Your task to perform on an android device: check out phone information Image 0: 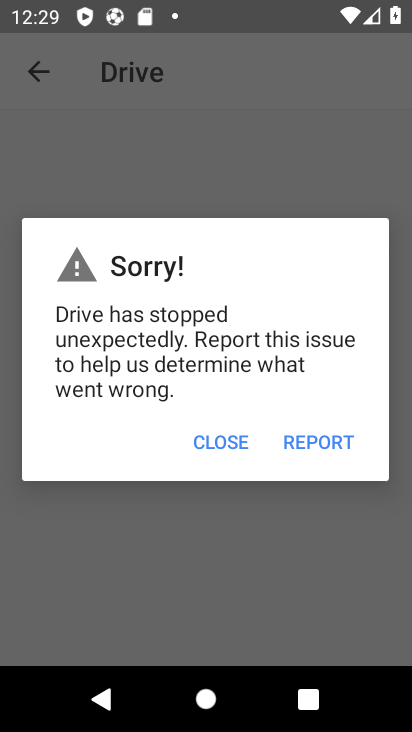
Step 0: drag from (235, 599) to (217, 331)
Your task to perform on an android device: check out phone information Image 1: 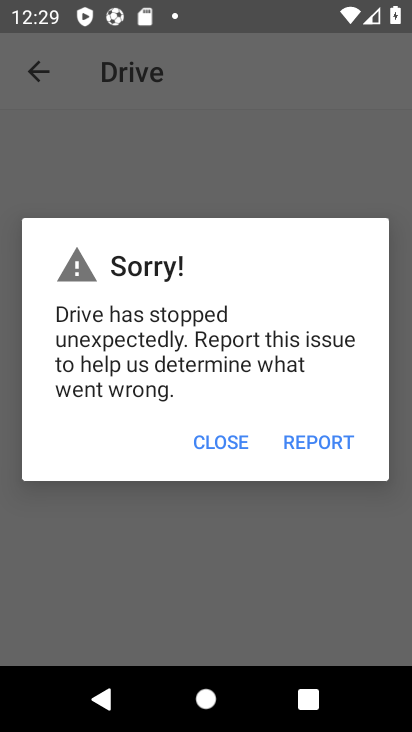
Step 1: press home button
Your task to perform on an android device: check out phone information Image 2: 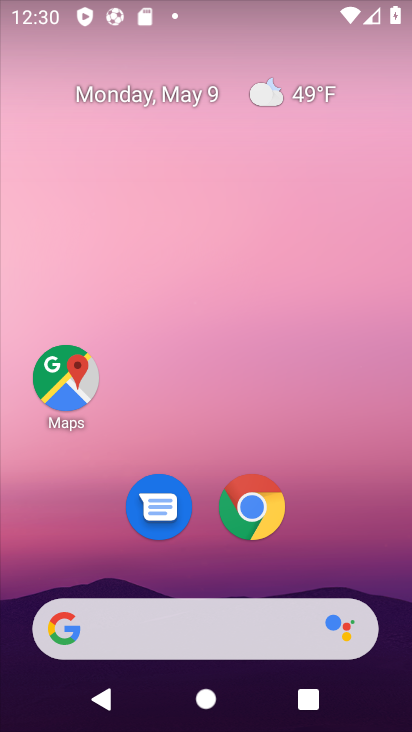
Step 2: drag from (188, 607) to (217, 325)
Your task to perform on an android device: check out phone information Image 3: 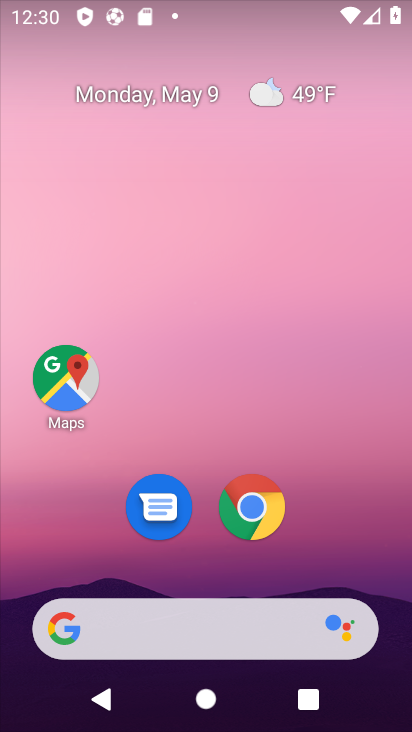
Step 3: drag from (211, 599) to (268, 278)
Your task to perform on an android device: check out phone information Image 4: 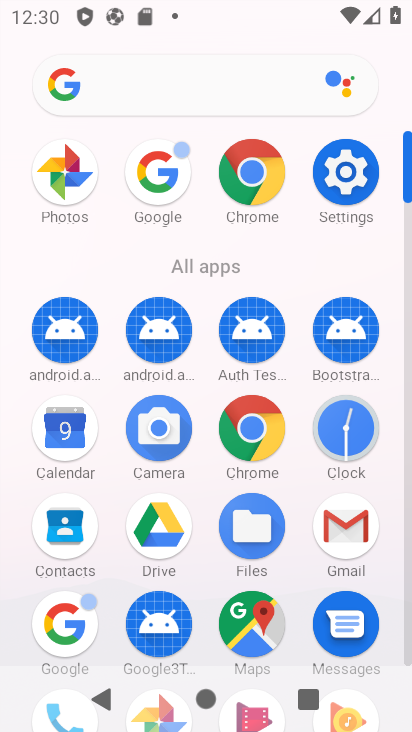
Step 4: click (84, 719)
Your task to perform on an android device: check out phone information Image 5: 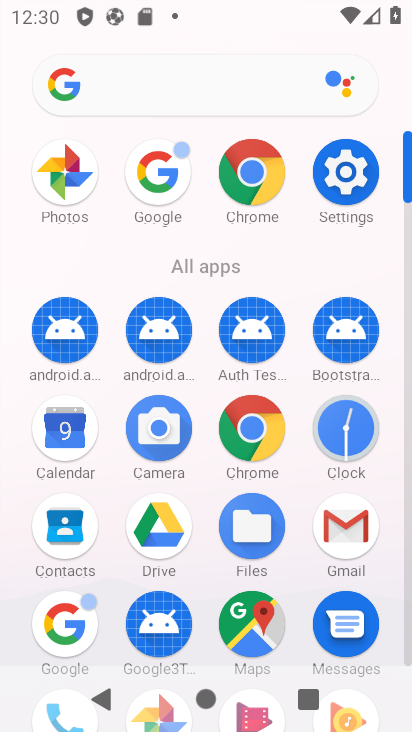
Step 5: click (56, 715)
Your task to perform on an android device: check out phone information Image 6: 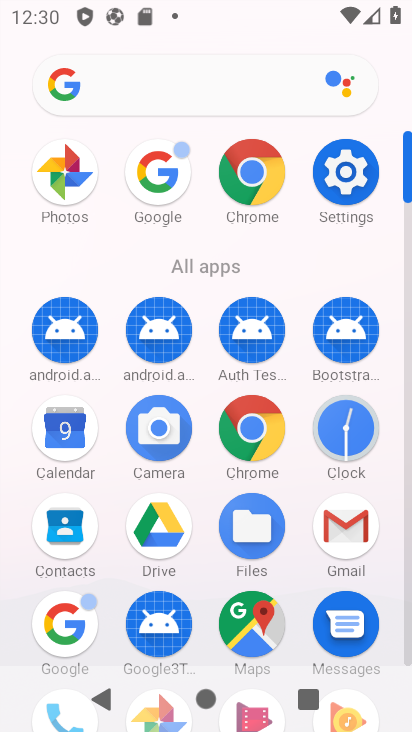
Step 6: drag from (158, 687) to (211, 424)
Your task to perform on an android device: check out phone information Image 7: 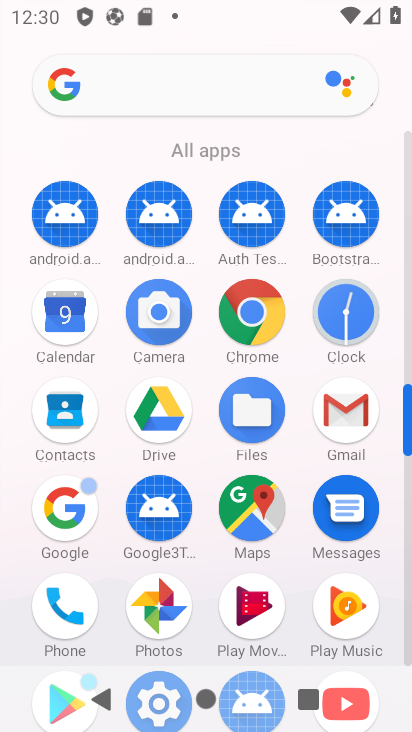
Step 7: click (44, 613)
Your task to perform on an android device: check out phone information Image 8: 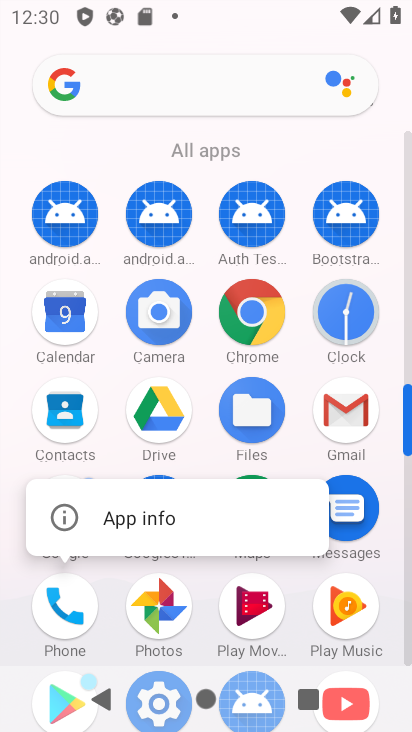
Step 8: click (155, 510)
Your task to perform on an android device: check out phone information Image 9: 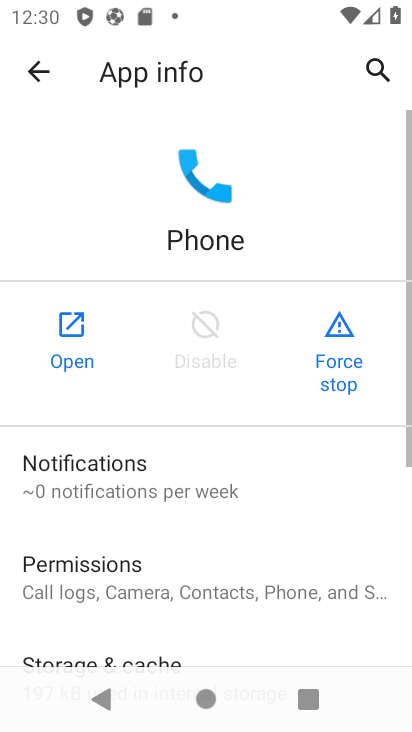
Step 9: drag from (141, 635) to (222, 261)
Your task to perform on an android device: check out phone information Image 10: 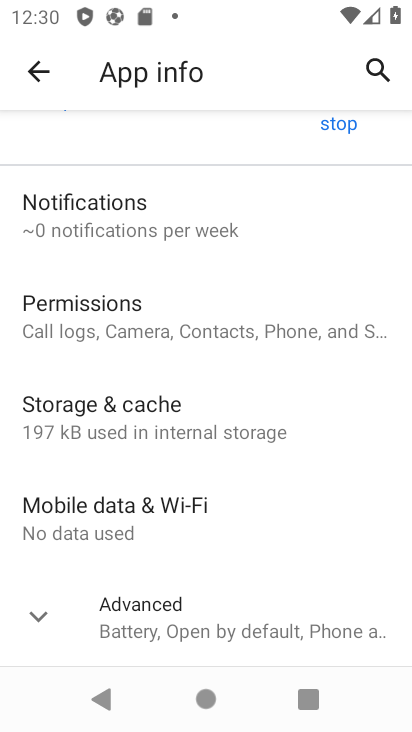
Step 10: drag from (177, 611) to (255, 225)
Your task to perform on an android device: check out phone information Image 11: 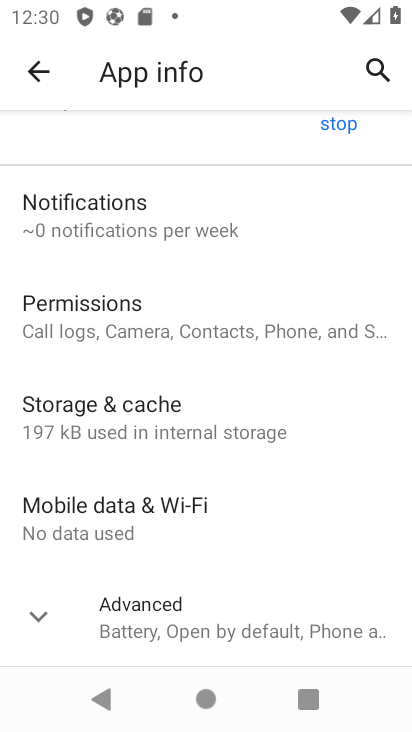
Step 11: click (166, 608)
Your task to perform on an android device: check out phone information Image 12: 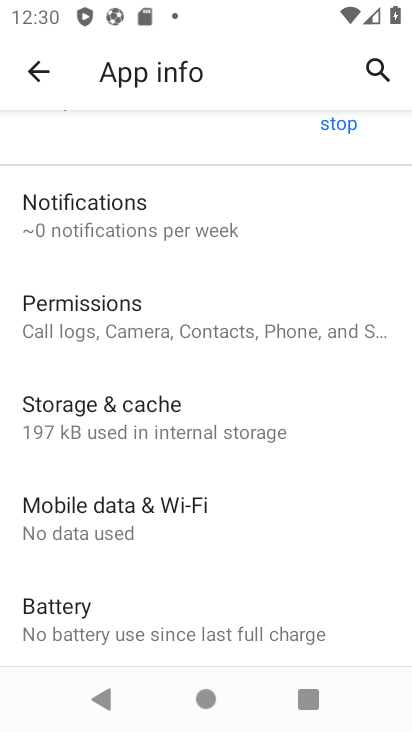
Step 12: task complete